Your task to perform on an android device: move an email to a new category in the gmail app Image 0: 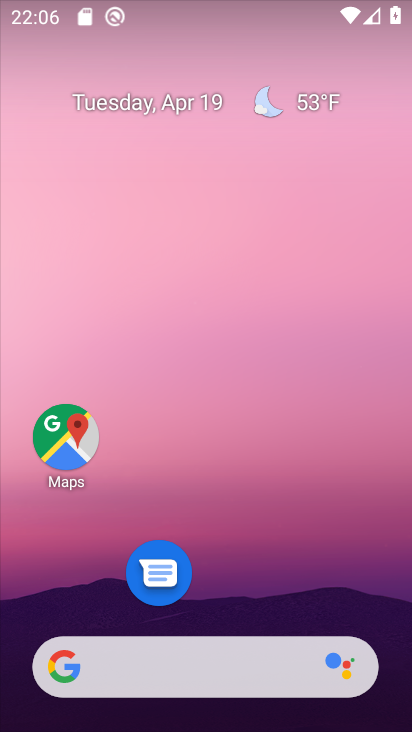
Step 0: press home button
Your task to perform on an android device: move an email to a new category in the gmail app Image 1: 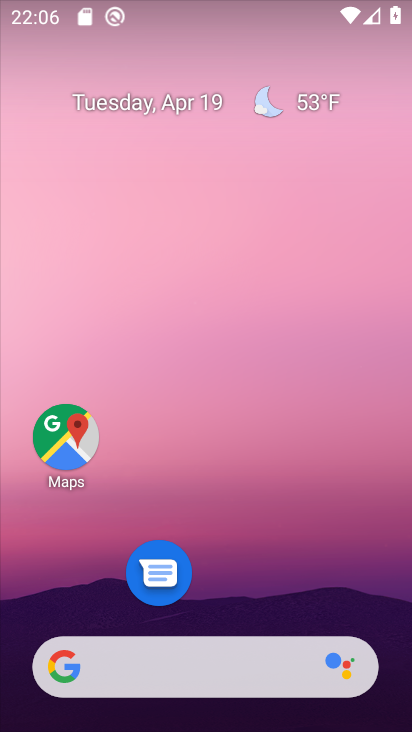
Step 1: drag from (234, 608) to (269, 94)
Your task to perform on an android device: move an email to a new category in the gmail app Image 2: 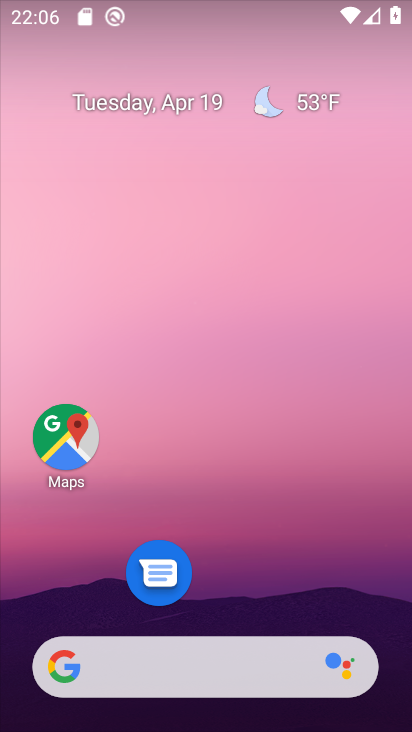
Step 2: drag from (248, 285) to (259, 36)
Your task to perform on an android device: move an email to a new category in the gmail app Image 3: 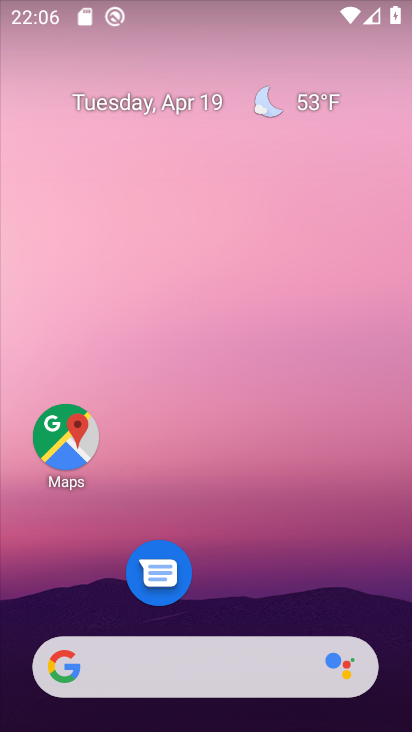
Step 3: drag from (228, 604) to (233, 78)
Your task to perform on an android device: move an email to a new category in the gmail app Image 4: 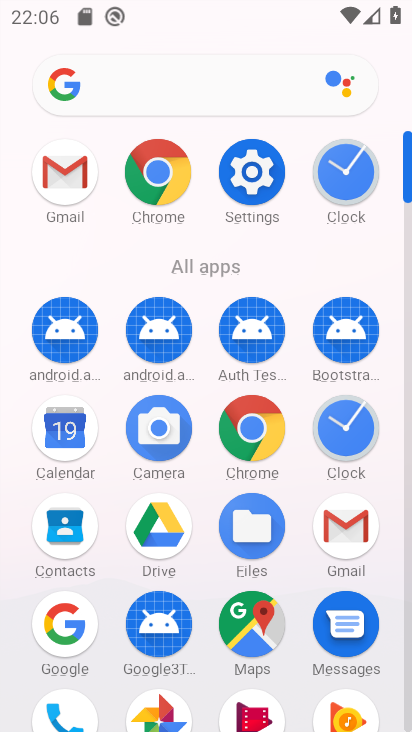
Step 4: click (63, 168)
Your task to perform on an android device: move an email to a new category in the gmail app Image 5: 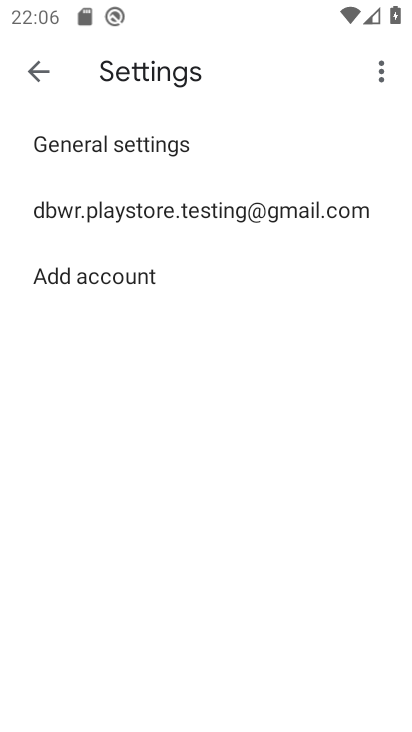
Step 5: click (41, 70)
Your task to perform on an android device: move an email to a new category in the gmail app Image 6: 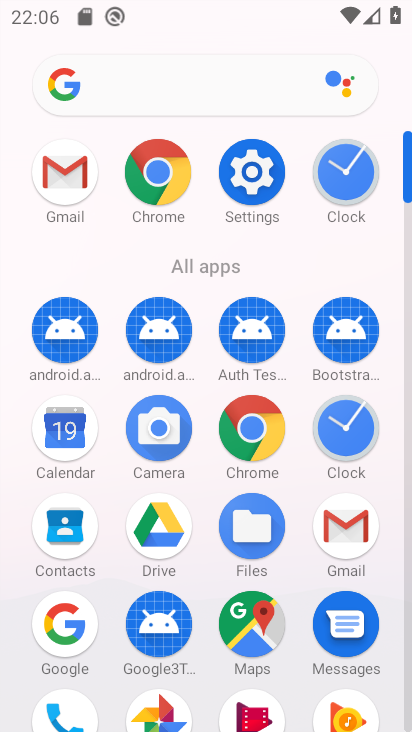
Step 6: click (63, 163)
Your task to perform on an android device: move an email to a new category in the gmail app Image 7: 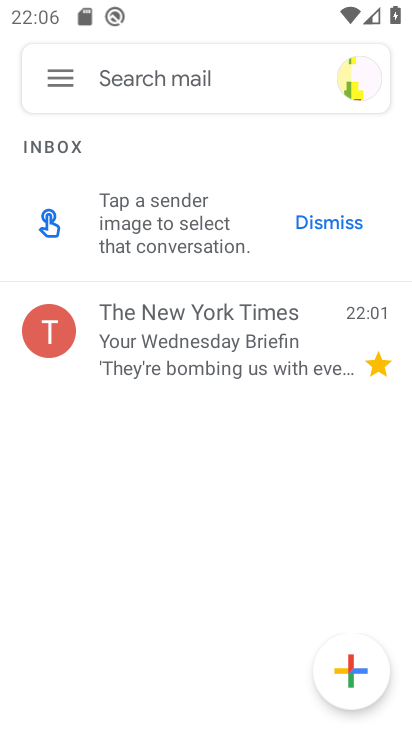
Step 7: click (58, 332)
Your task to perform on an android device: move an email to a new category in the gmail app Image 8: 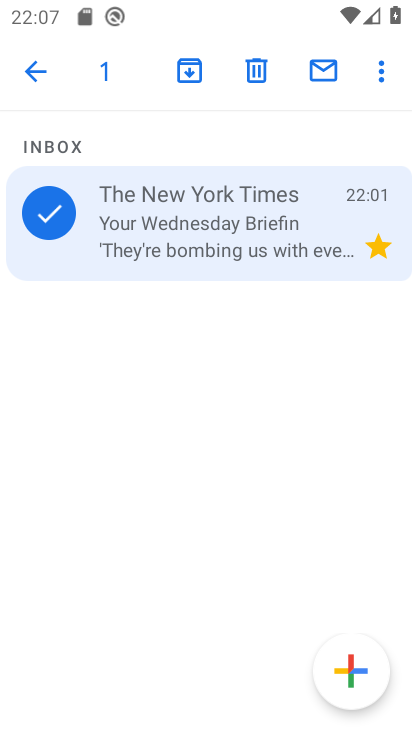
Step 8: click (377, 67)
Your task to perform on an android device: move an email to a new category in the gmail app Image 9: 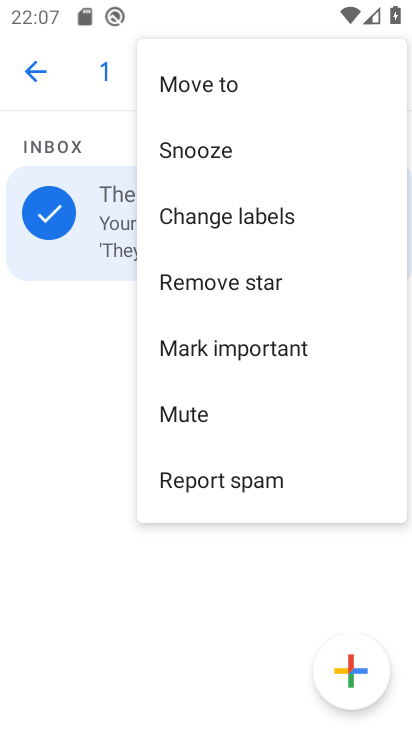
Step 9: click (216, 81)
Your task to perform on an android device: move an email to a new category in the gmail app Image 10: 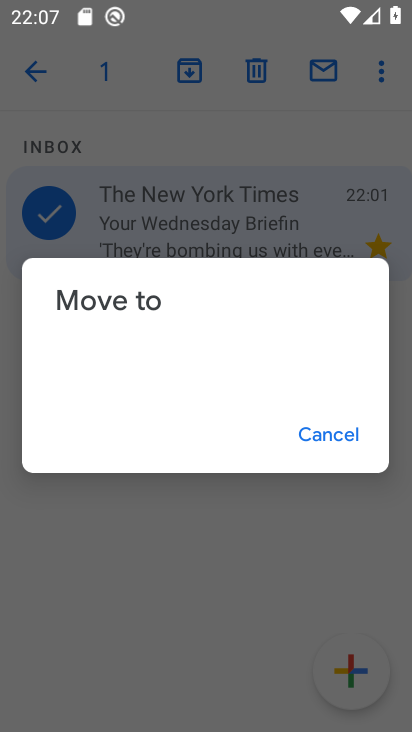
Step 10: click (182, 362)
Your task to perform on an android device: move an email to a new category in the gmail app Image 11: 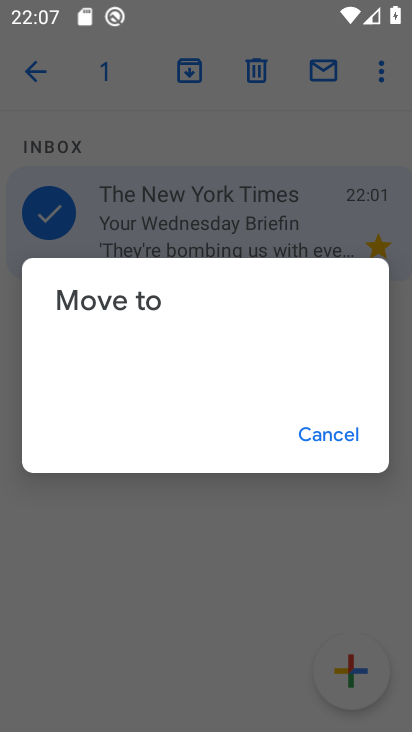
Step 11: task complete